Your task to perform on an android device: Do I have any events tomorrow? Image 0: 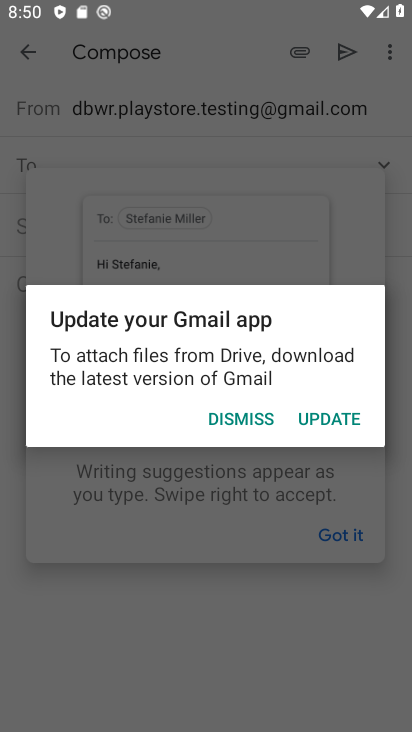
Step 0: press home button
Your task to perform on an android device: Do I have any events tomorrow? Image 1: 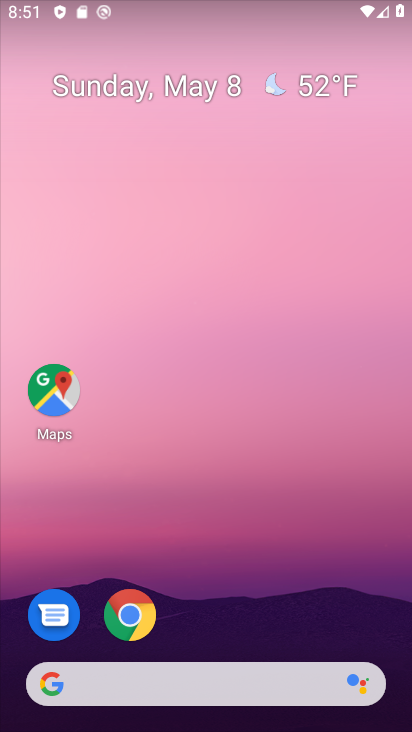
Step 1: drag from (153, 652) to (215, 231)
Your task to perform on an android device: Do I have any events tomorrow? Image 2: 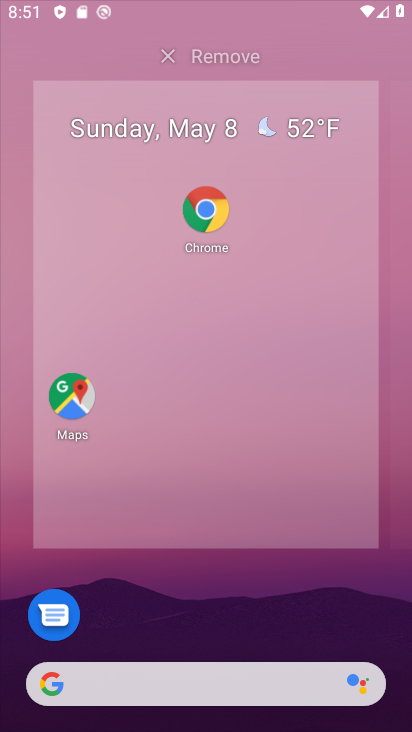
Step 2: drag from (229, 633) to (229, 176)
Your task to perform on an android device: Do I have any events tomorrow? Image 3: 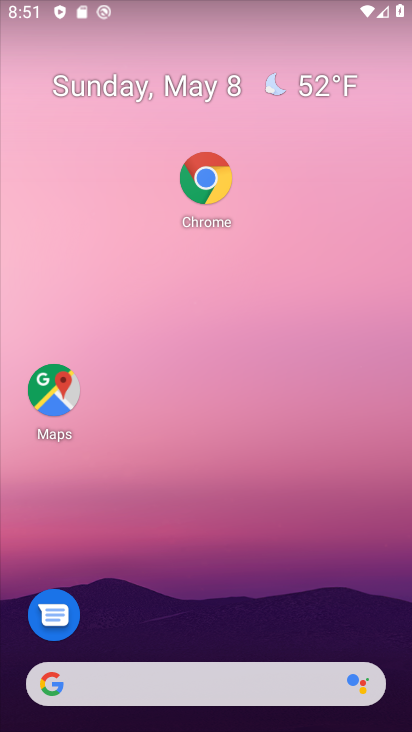
Step 3: drag from (192, 650) to (230, 205)
Your task to perform on an android device: Do I have any events tomorrow? Image 4: 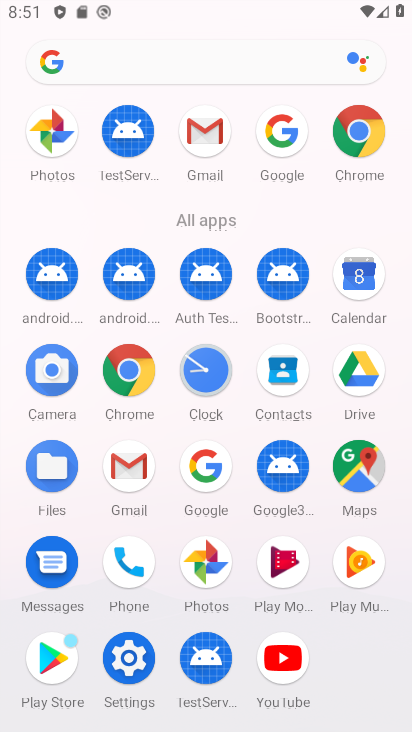
Step 4: click (366, 285)
Your task to perform on an android device: Do I have any events tomorrow? Image 5: 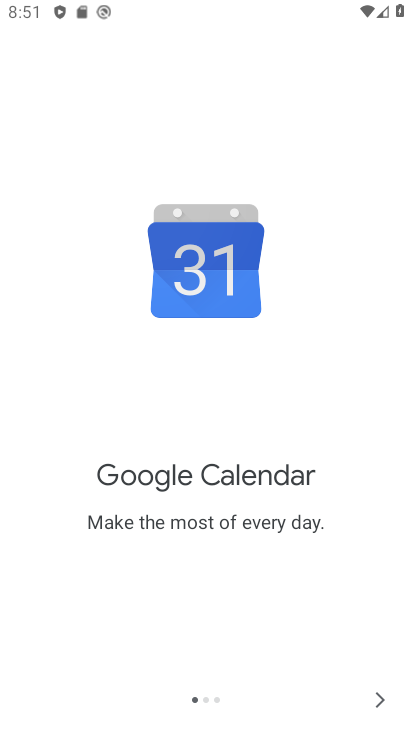
Step 5: click (376, 702)
Your task to perform on an android device: Do I have any events tomorrow? Image 6: 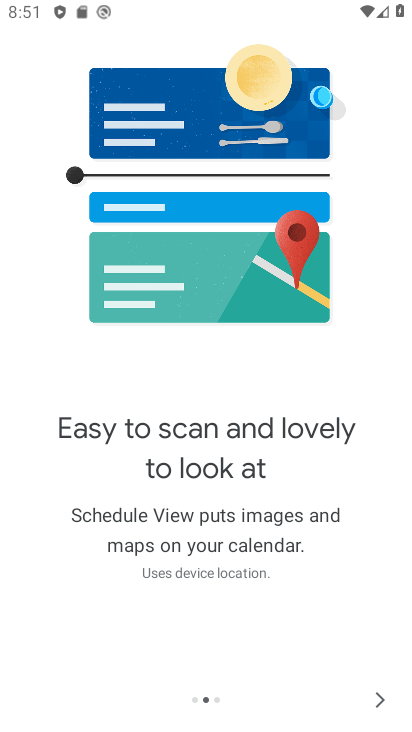
Step 6: click (376, 702)
Your task to perform on an android device: Do I have any events tomorrow? Image 7: 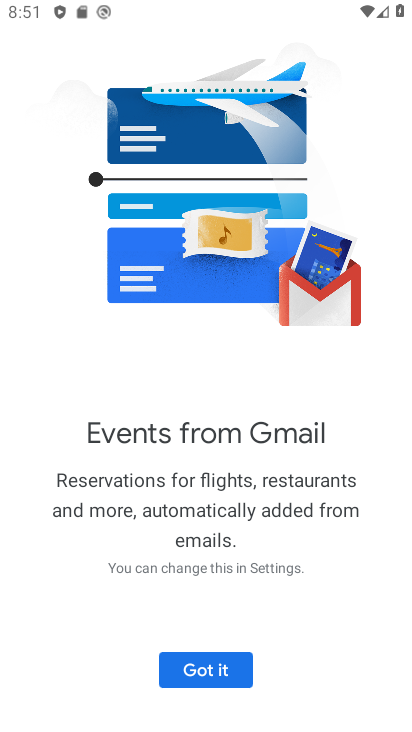
Step 7: click (376, 702)
Your task to perform on an android device: Do I have any events tomorrow? Image 8: 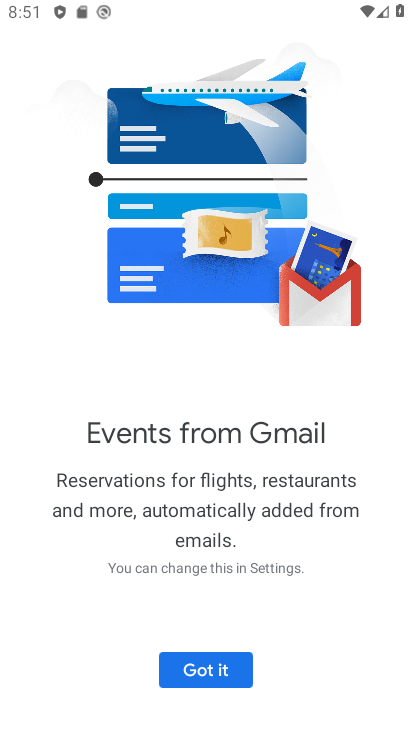
Step 8: click (181, 664)
Your task to perform on an android device: Do I have any events tomorrow? Image 9: 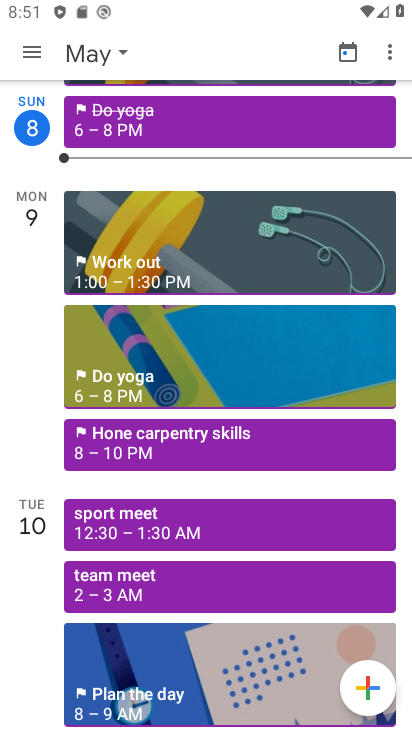
Step 9: click (156, 240)
Your task to perform on an android device: Do I have any events tomorrow? Image 10: 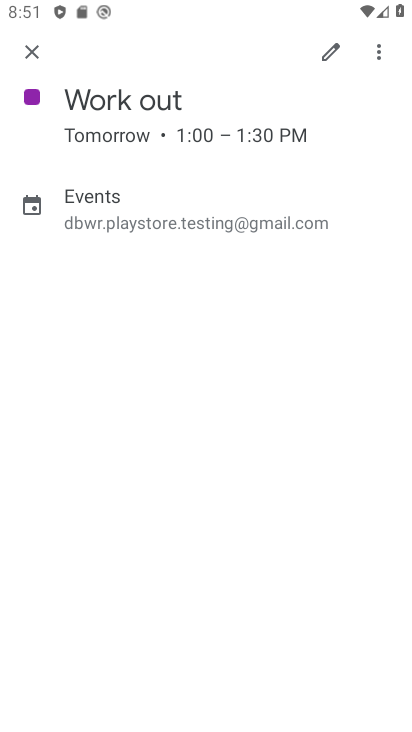
Step 10: task complete